Your task to perform on an android device: check google app version Image 0: 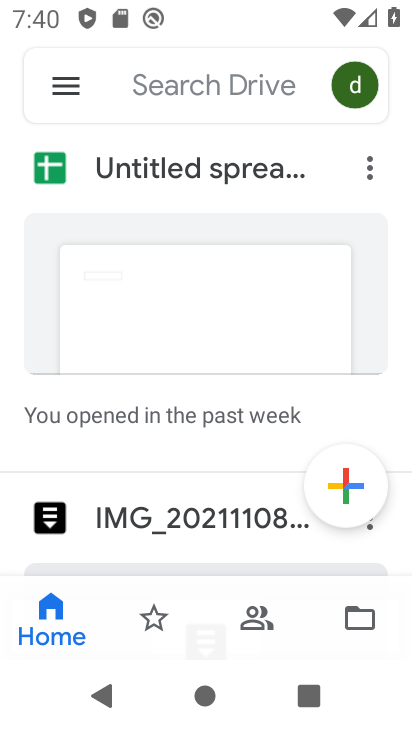
Step 0: press home button
Your task to perform on an android device: check google app version Image 1: 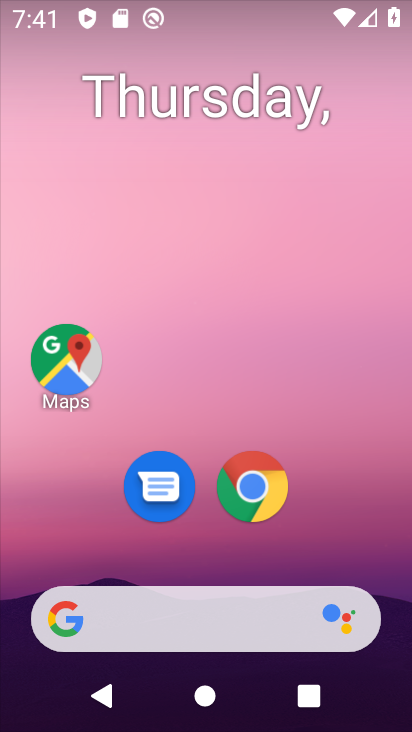
Step 1: drag from (174, 562) to (240, 133)
Your task to perform on an android device: check google app version Image 2: 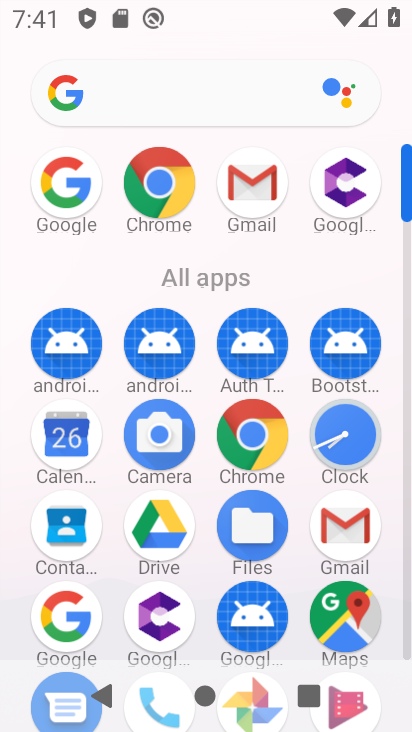
Step 2: drag from (157, 462) to (213, 92)
Your task to perform on an android device: check google app version Image 3: 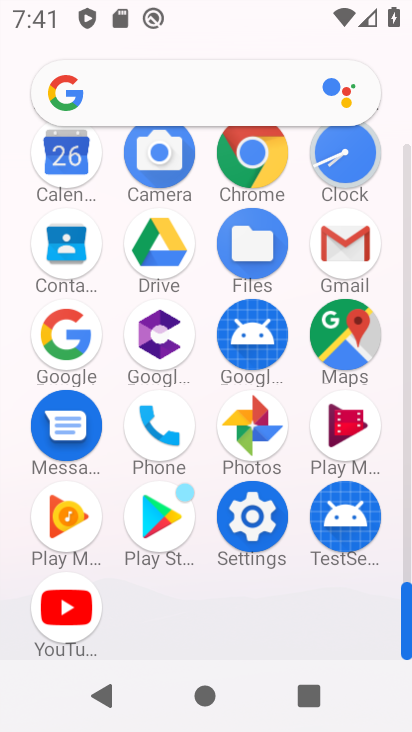
Step 3: click (65, 349)
Your task to perform on an android device: check google app version Image 4: 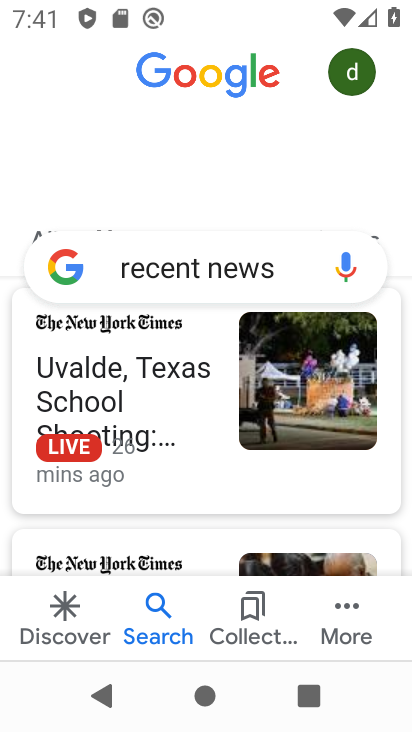
Step 4: click (348, 615)
Your task to perform on an android device: check google app version Image 5: 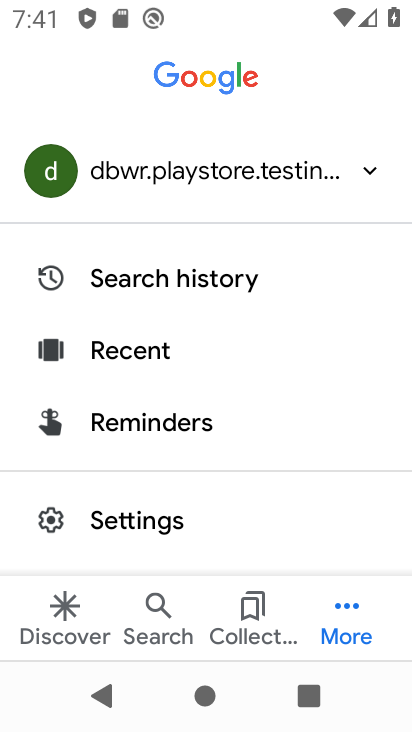
Step 5: click (142, 530)
Your task to perform on an android device: check google app version Image 6: 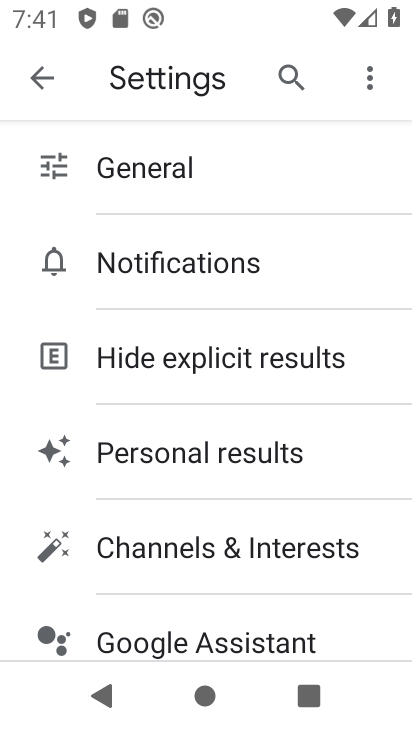
Step 6: drag from (151, 523) to (237, 186)
Your task to perform on an android device: check google app version Image 7: 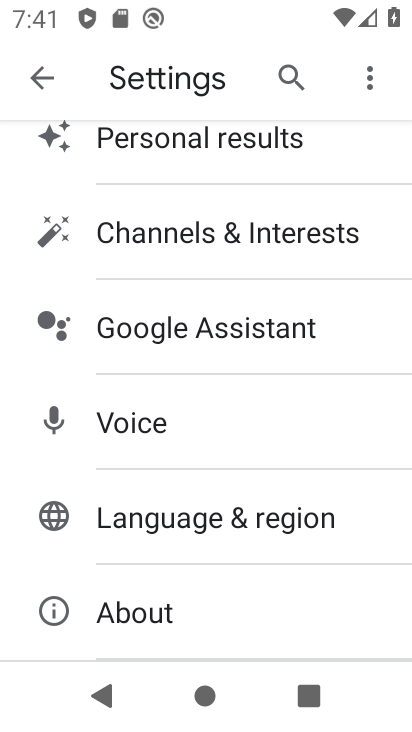
Step 7: click (151, 629)
Your task to perform on an android device: check google app version Image 8: 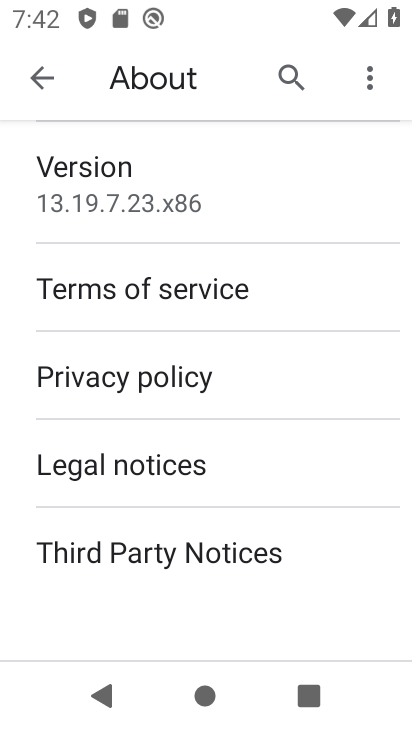
Step 8: click (172, 210)
Your task to perform on an android device: check google app version Image 9: 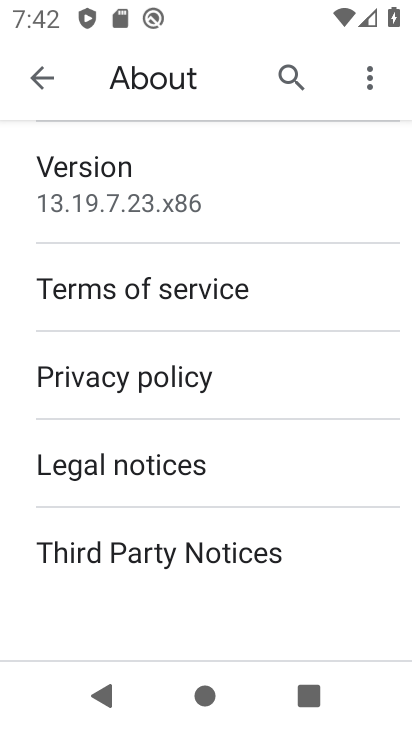
Step 9: task complete